Your task to perform on an android device: change the upload size in google photos Image 0: 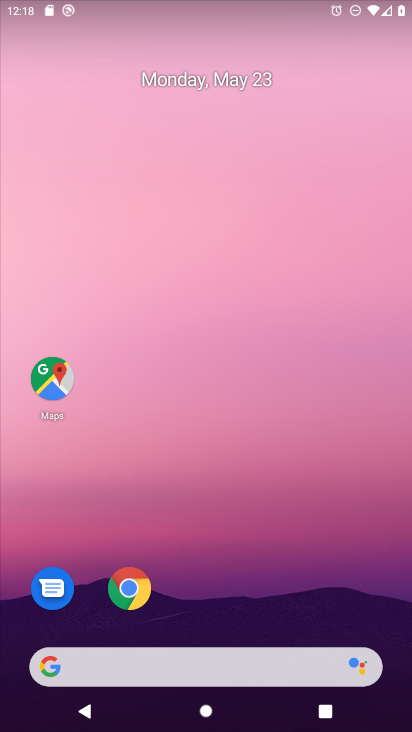
Step 0: drag from (264, 686) to (152, 193)
Your task to perform on an android device: change the upload size in google photos Image 1: 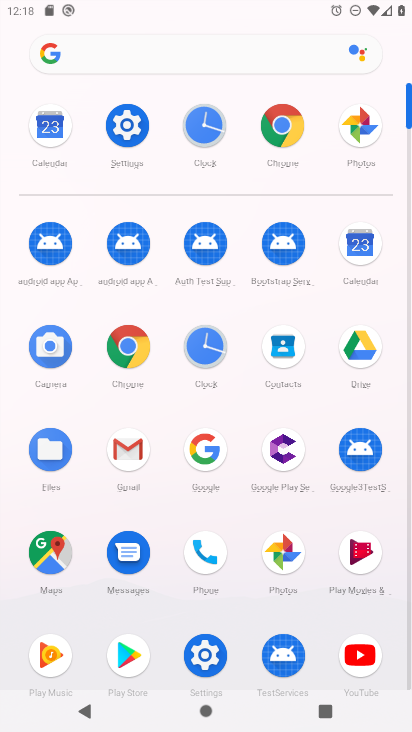
Step 1: click (274, 550)
Your task to perform on an android device: change the upload size in google photos Image 2: 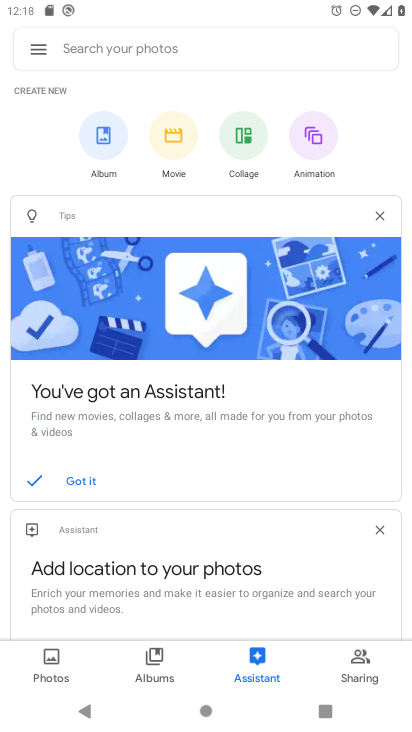
Step 2: click (26, 61)
Your task to perform on an android device: change the upload size in google photos Image 3: 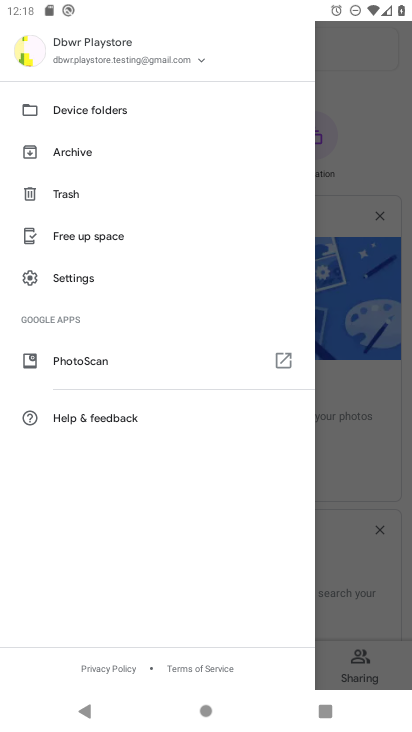
Step 3: click (78, 279)
Your task to perform on an android device: change the upload size in google photos Image 4: 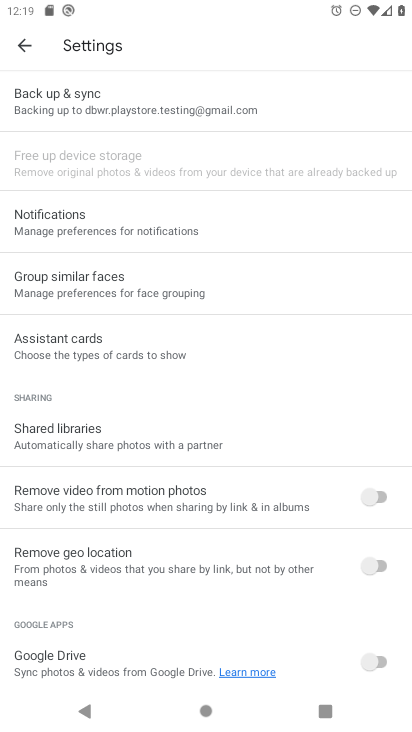
Step 4: click (98, 109)
Your task to perform on an android device: change the upload size in google photos Image 5: 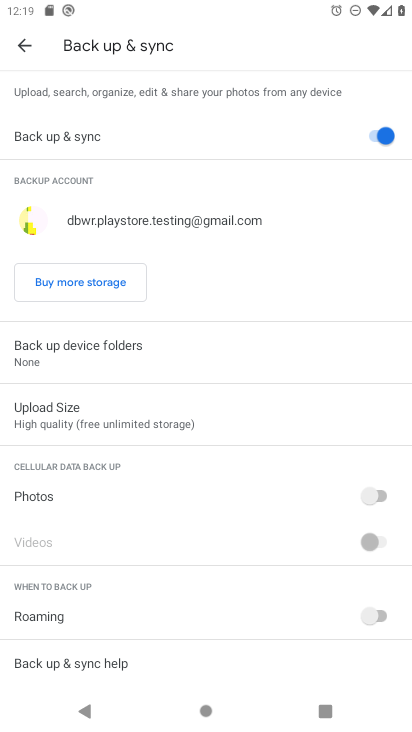
Step 5: click (125, 413)
Your task to perform on an android device: change the upload size in google photos Image 6: 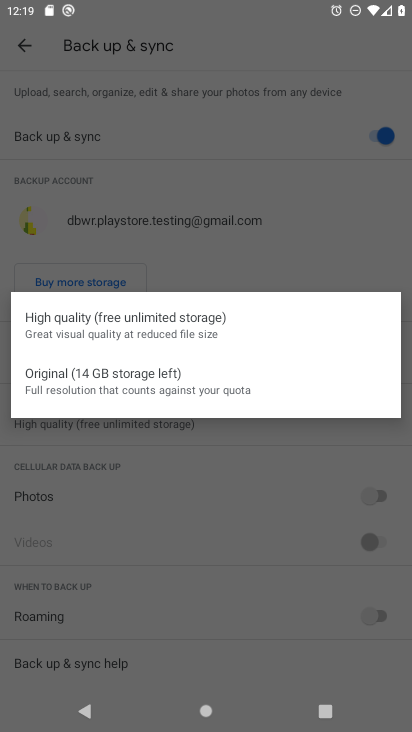
Step 6: task complete